Your task to perform on an android device: change notification settings in the gmail app Image 0: 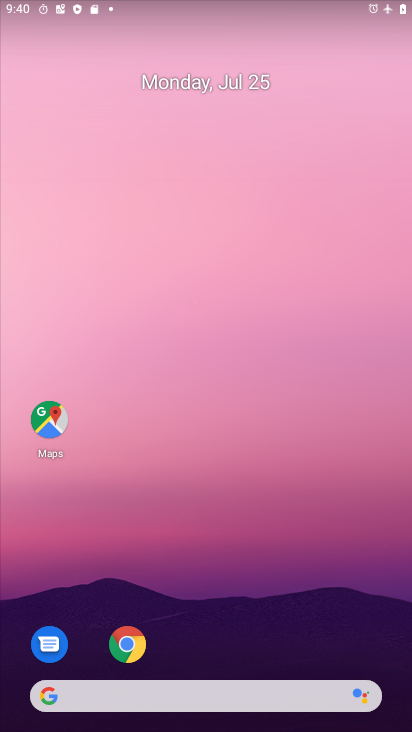
Step 0: drag from (251, 610) to (271, 32)
Your task to perform on an android device: change notification settings in the gmail app Image 1: 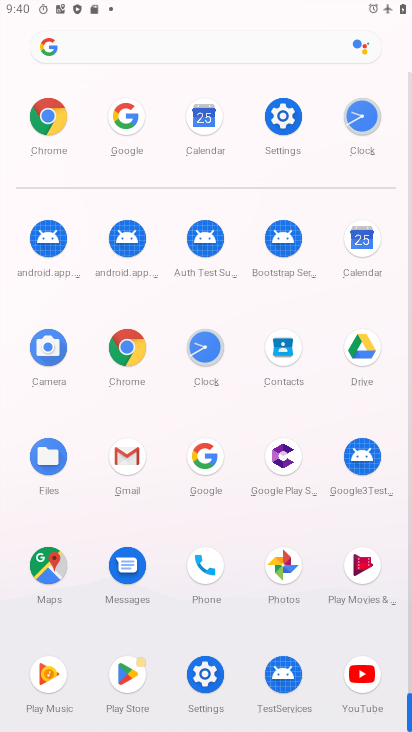
Step 1: click (137, 466)
Your task to perform on an android device: change notification settings in the gmail app Image 2: 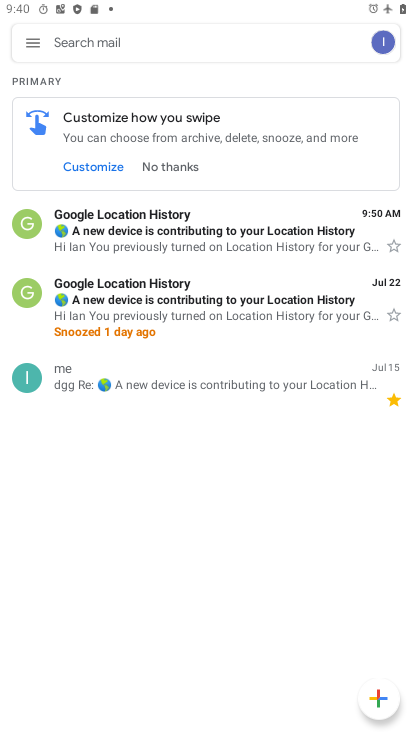
Step 2: click (35, 38)
Your task to perform on an android device: change notification settings in the gmail app Image 3: 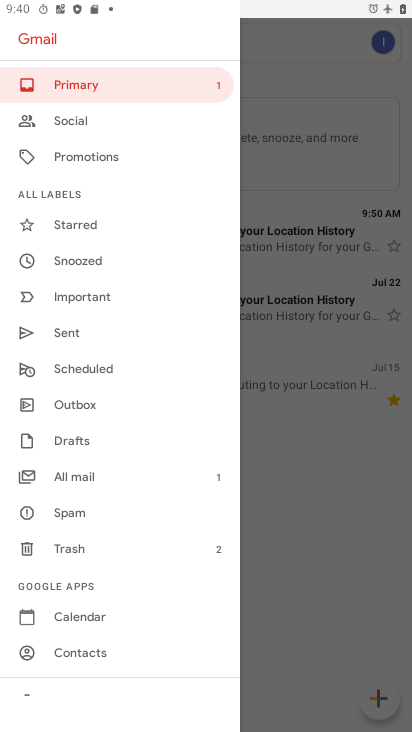
Step 3: drag from (105, 632) to (114, 308)
Your task to perform on an android device: change notification settings in the gmail app Image 4: 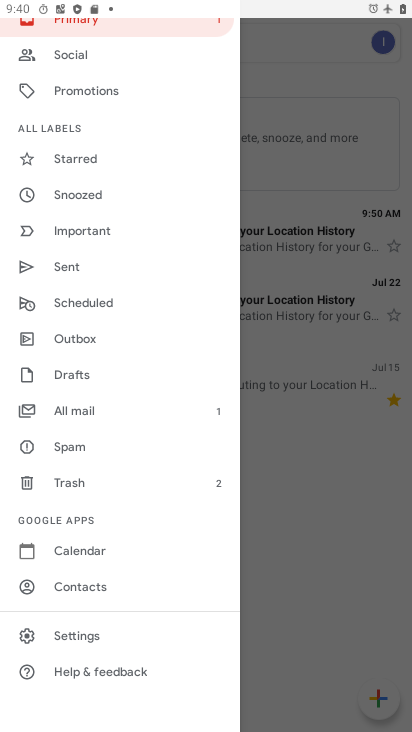
Step 4: click (103, 627)
Your task to perform on an android device: change notification settings in the gmail app Image 5: 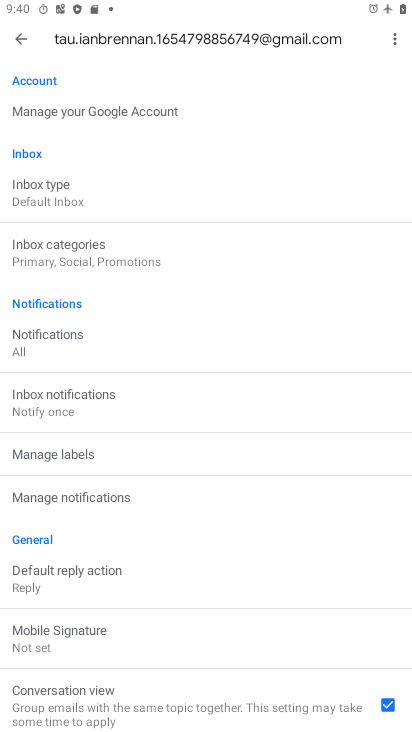
Step 5: click (154, 495)
Your task to perform on an android device: change notification settings in the gmail app Image 6: 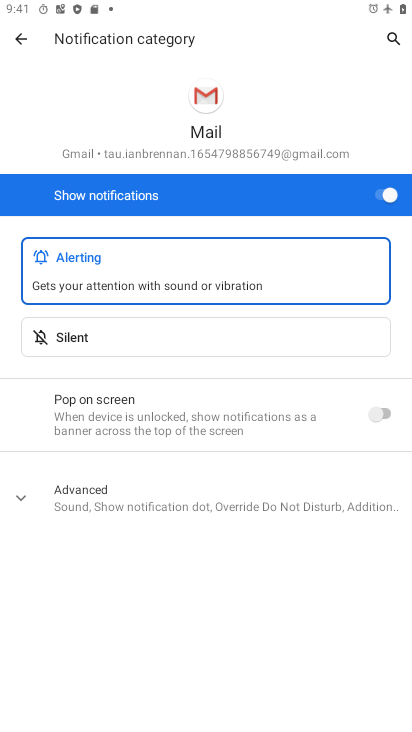
Step 6: click (390, 201)
Your task to perform on an android device: change notification settings in the gmail app Image 7: 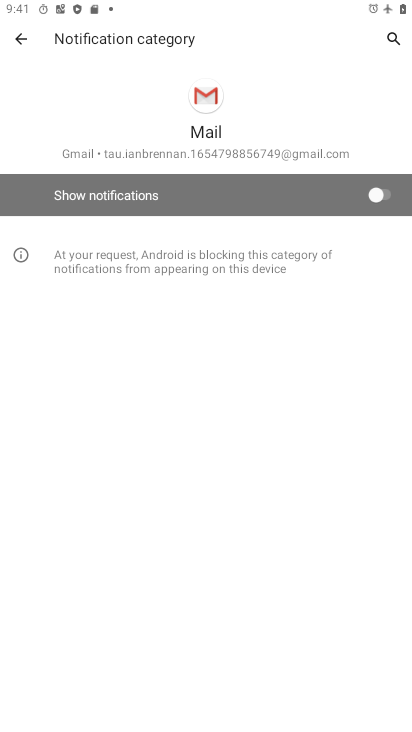
Step 7: task complete